Your task to perform on an android device: Show me the alarms in the clock app Image 0: 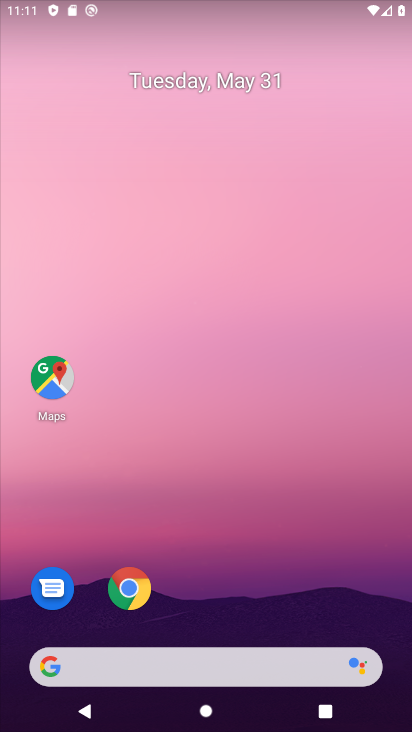
Step 0: drag from (253, 596) to (320, 215)
Your task to perform on an android device: Show me the alarms in the clock app Image 1: 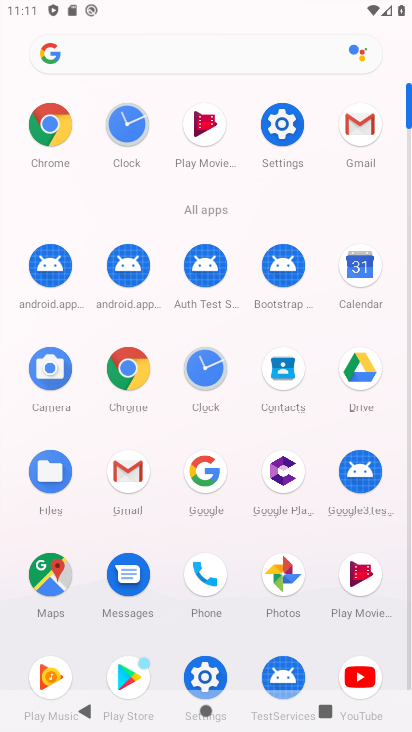
Step 1: click (202, 378)
Your task to perform on an android device: Show me the alarms in the clock app Image 2: 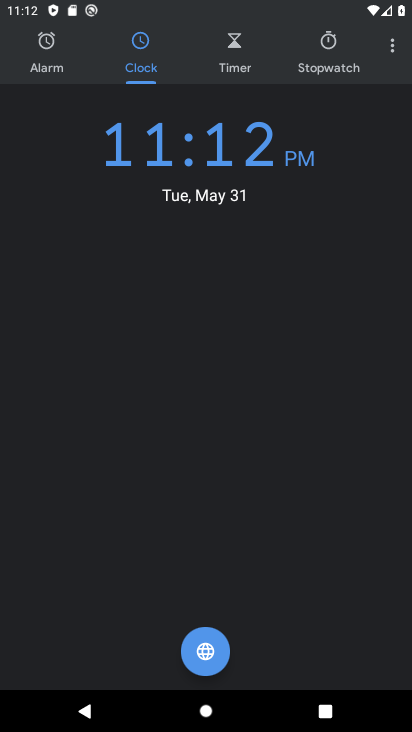
Step 2: click (62, 54)
Your task to perform on an android device: Show me the alarms in the clock app Image 3: 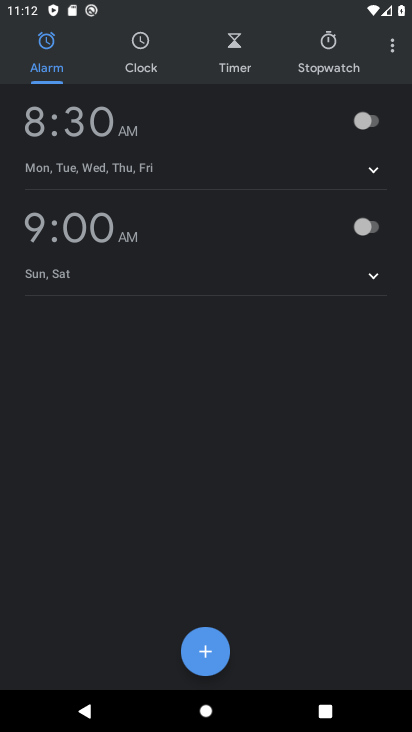
Step 3: task complete